Your task to perform on an android device: change notifications settings Image 0: 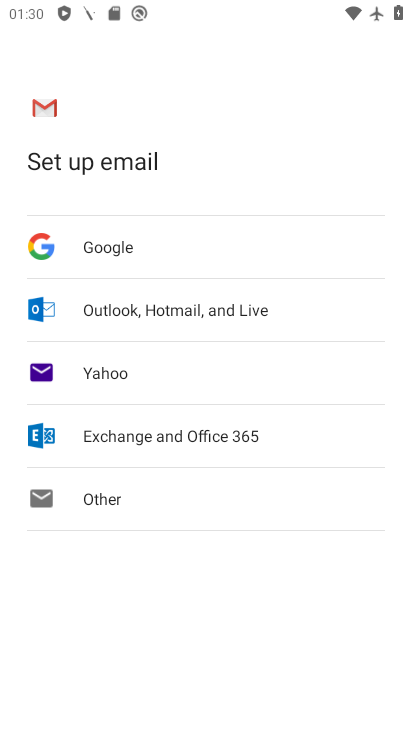
Step 0: press home button
Your task to perform on an android device: change notifications settings Image 1: 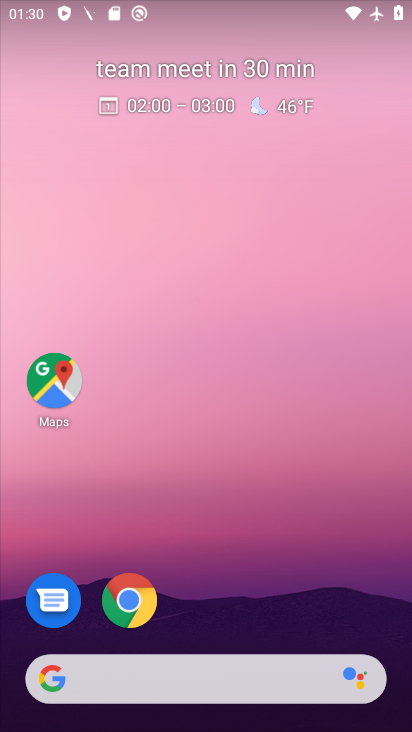
Step 1: drag from (205, 650) to (108, 2)
Your task to perform on an android device: change notifications settings Image 2: 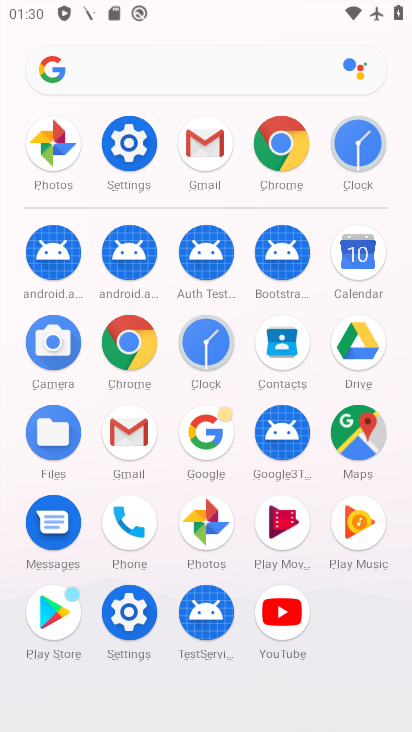
Step 2: click (132, 141)
Your task to perform on an android device: change notifications settings Image 3: 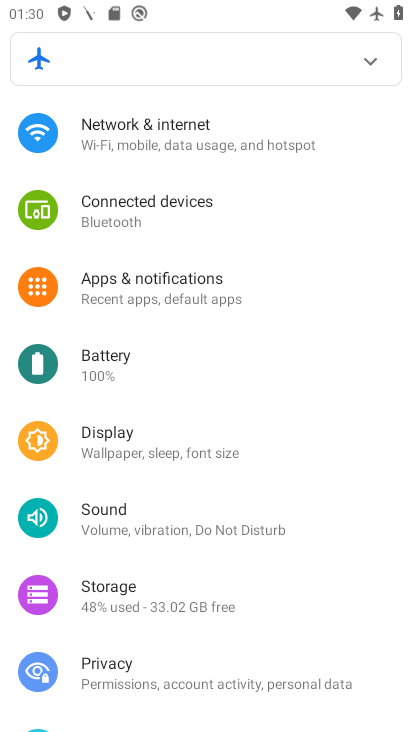
Step 3: click (149, 255)
Your task to perform on an android device: change notifications settings Image 4: 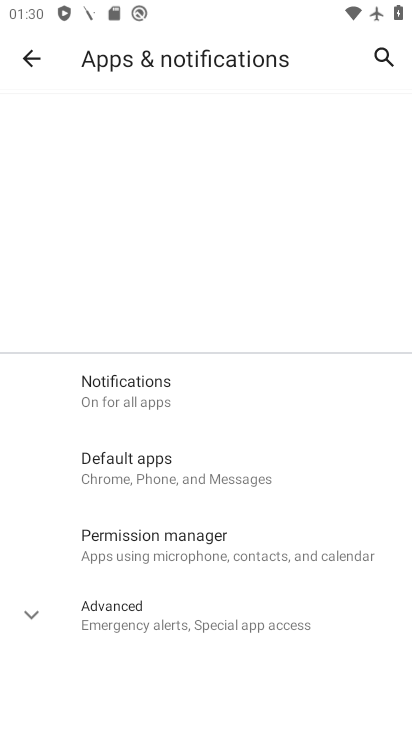
Step 4: click (146, 370)
Your task to perform on an android device: change notifications settings Image 5: 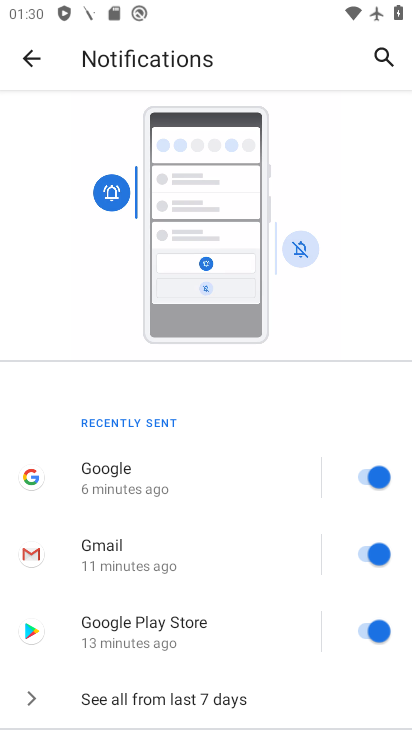
Step 5: task complete